Your task to perform on an android device: toggle data saver in the chrome app Image 0: 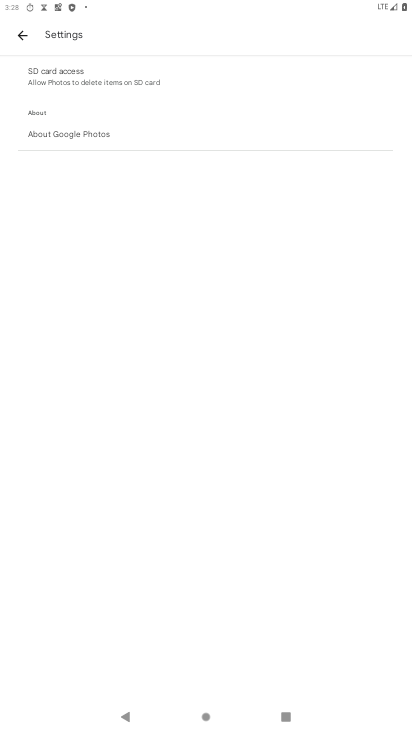
Step 0: press home button
Your task to perform on an android device: toggle data saver in the chrome app Image 1: 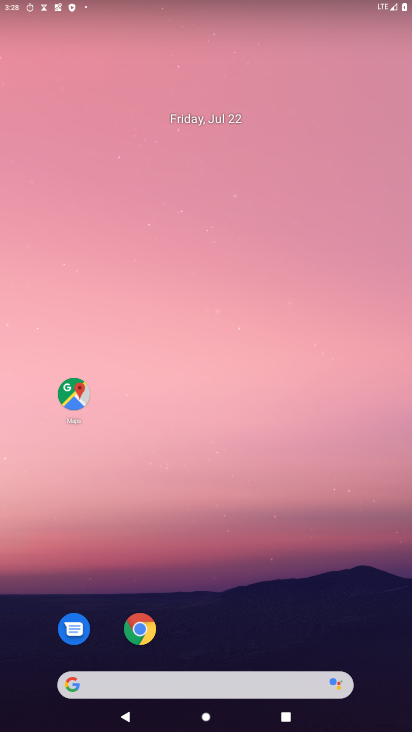
Step 1: drag from (182, 683) to (244, 24)
Your task to perform on an android device: toggle data saver in the chrome app Image 2: 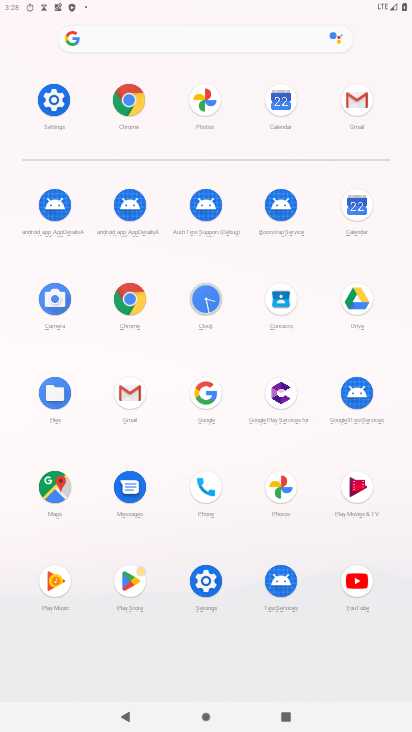
Step 2: click (131, 305)
Your task to perform on an android device: toggle data saver in the chrome app Image 3: 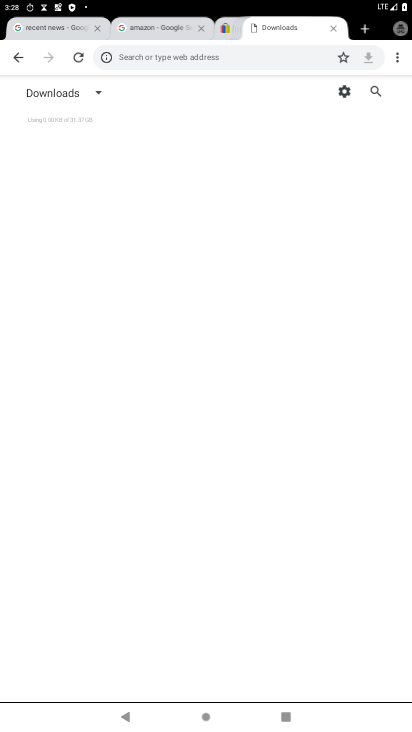
Step 3: click (398, 57)
Your task to perform on an android device: toggle data saver in the chrome app Image 4: 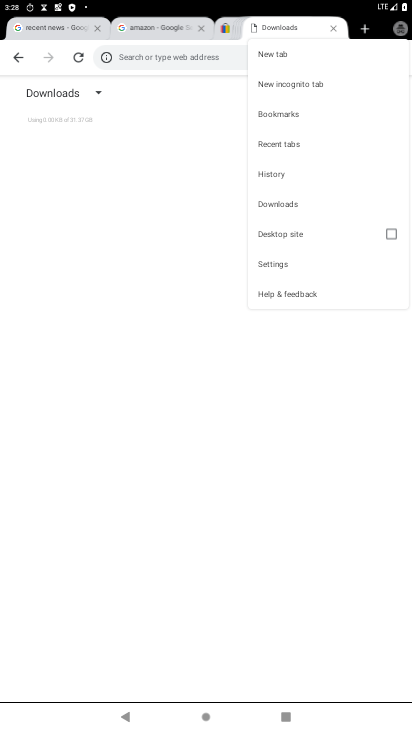
Step 4: click (282, 266)
Your task to perform on an android device: toggle data saver in the chrome app Image 5: 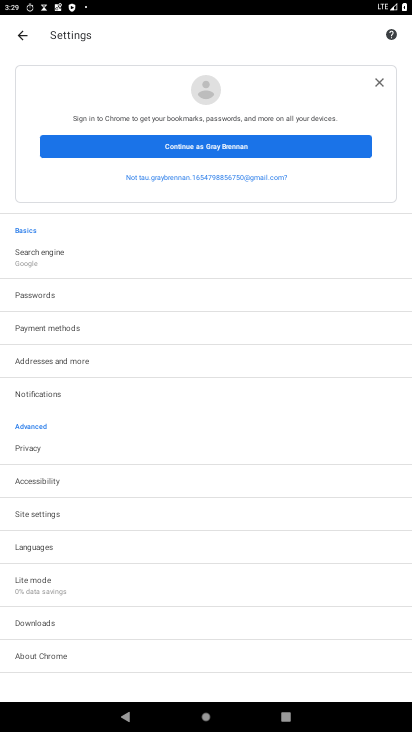
Step 5: click (66, 573)
Your task to perform on an android device: toggle data saver in the chrome app Image 6: 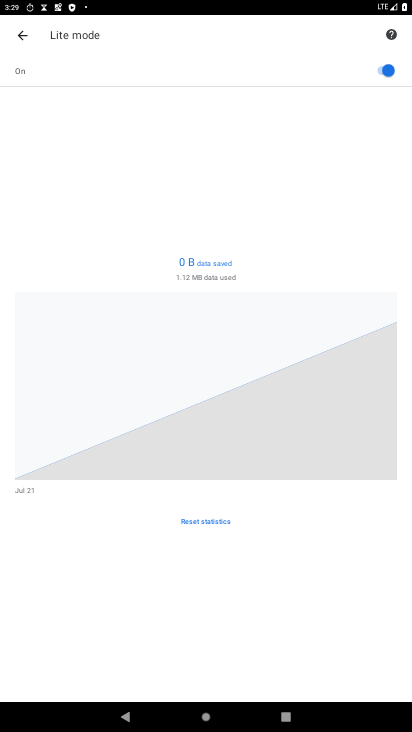
Step 6: click (391, 74)
Your task to perform on an android device: toggle data saver in the chrome app Image 7: 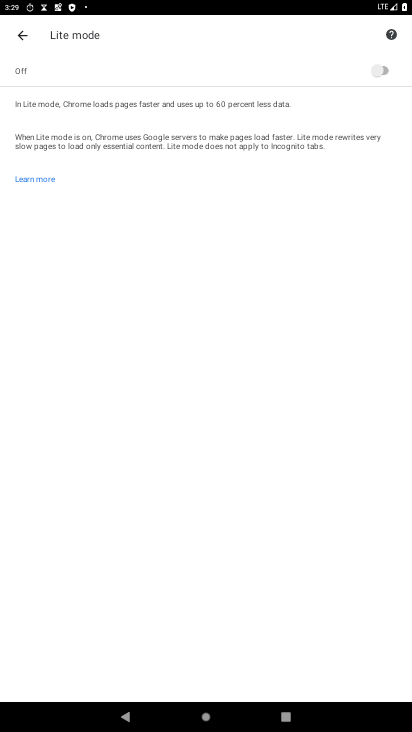
Step 7: task complete